Your task to perform on an android device: Go to accessibility settings Image 0: 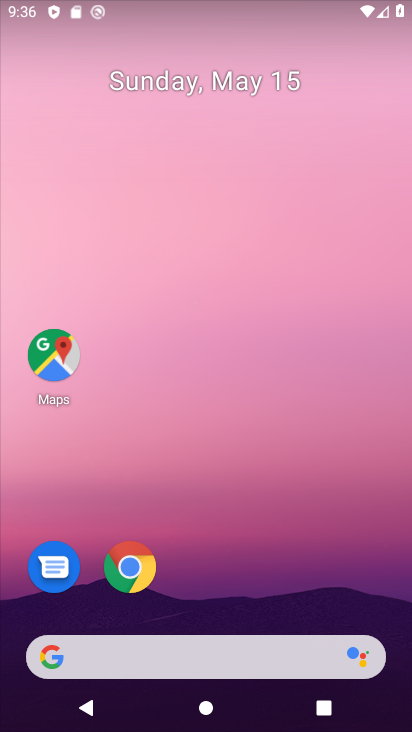
Step 0: drag from (218, 554) to (249, 37)
Your task to perform on an android device: Go to accessibility settings Image 1: 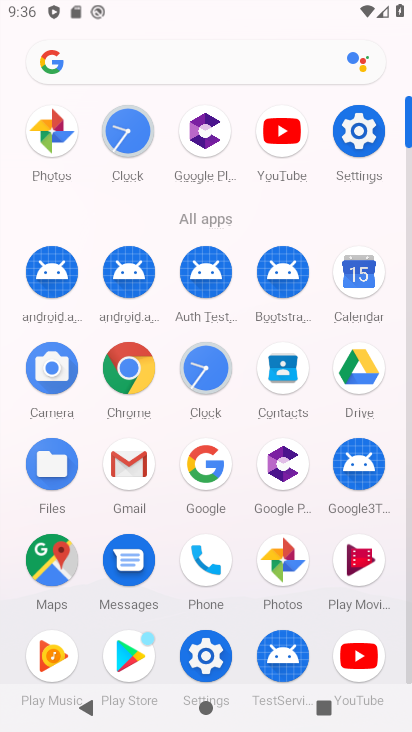
Step 1: click (359, 124)
Your task to perform on an android device: Go to accessibility settings Image 2: 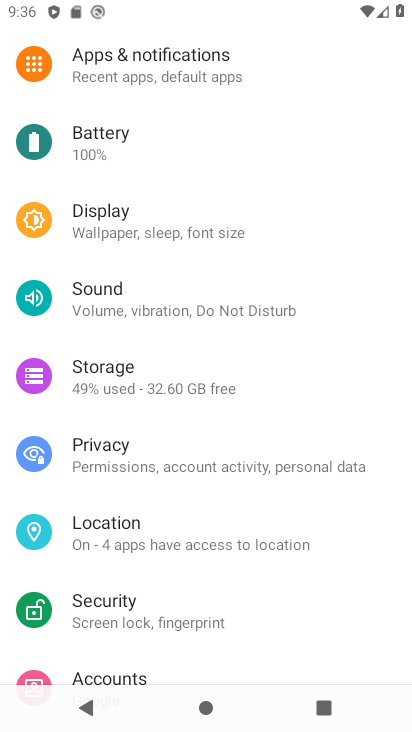
Step 2: drag from (233, 576) to (240, 260)
Your task to perform on an android device: Go to accessibility settings Image 3: 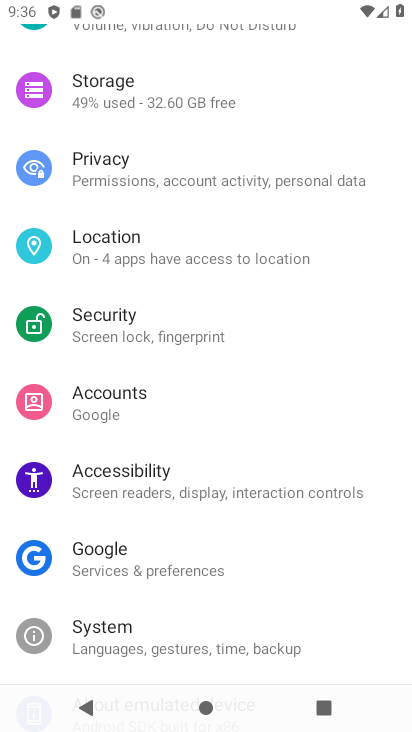
Step 3: click (111, 486)
Your task to perform on an android device: Go to accessibility settings Image 4: 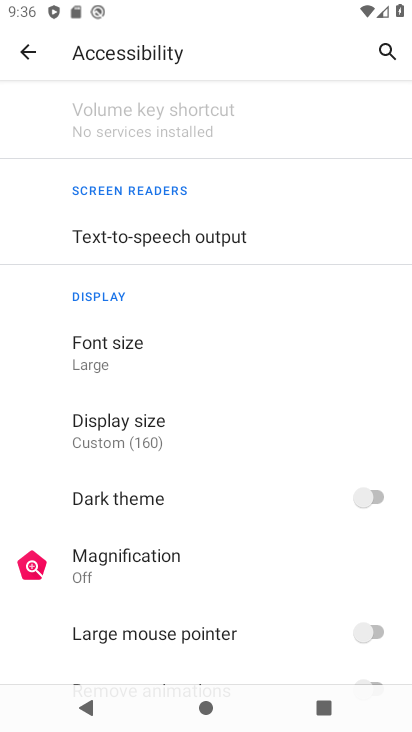
Step 4: task complete